Your task to perform on an android device: open app "Google Photos" (install if not already installed) Image 0: 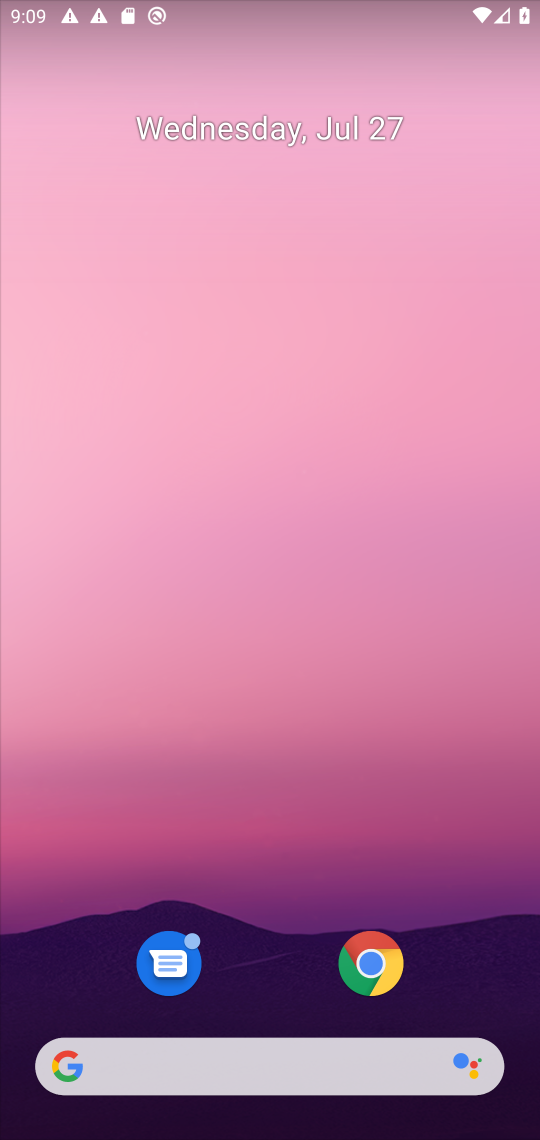
Step 0: drag from (263, 980) to (354, 1)
Your task to perform on an android device: open app "Google Photos" (install if not already installed) Image 1: 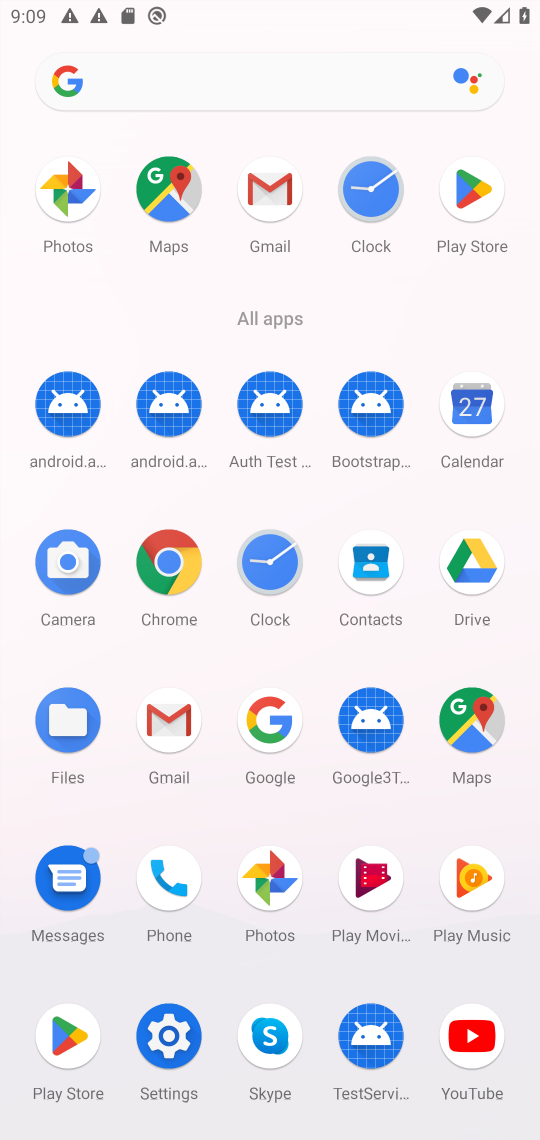
Step 1: click (76, 1023)
Your task to perform on an android device: open app "Google Photos" (install if not already installed) Image 2: 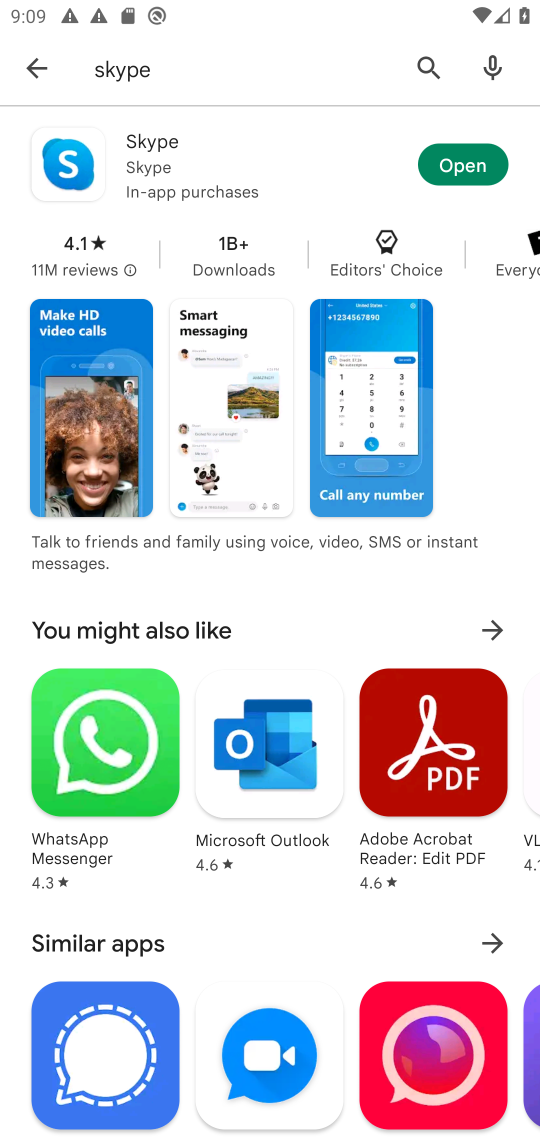
Step 2: click (426, 62)
Your task to perform on an android device: open app "Google Photos" (install if not already installed) Image 3: 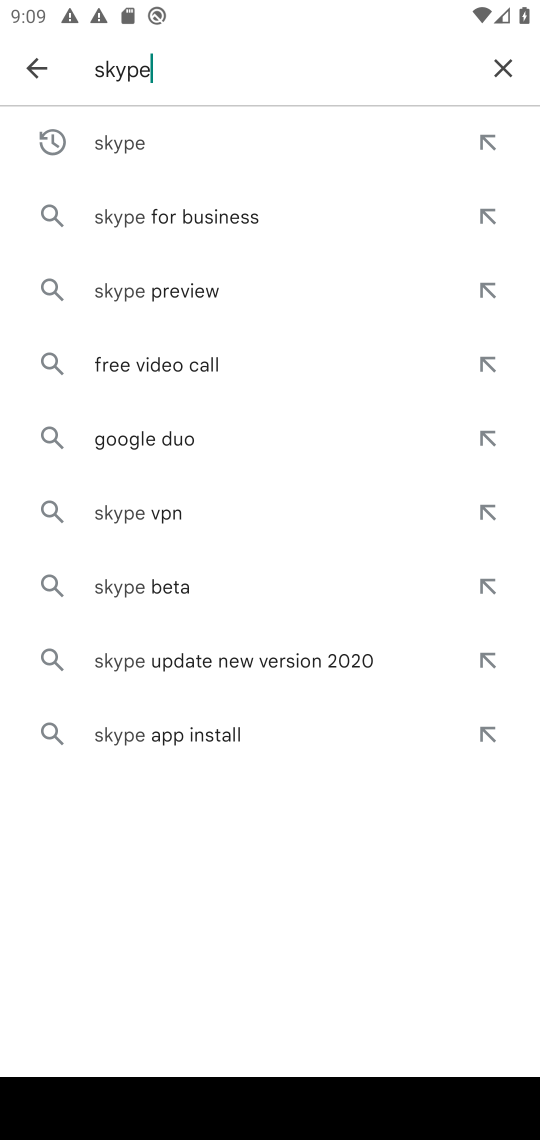
Step 3: click (502, 71)
Your task to perform on an android device: open app "Google Photos" (install if not already installed) Image 4: 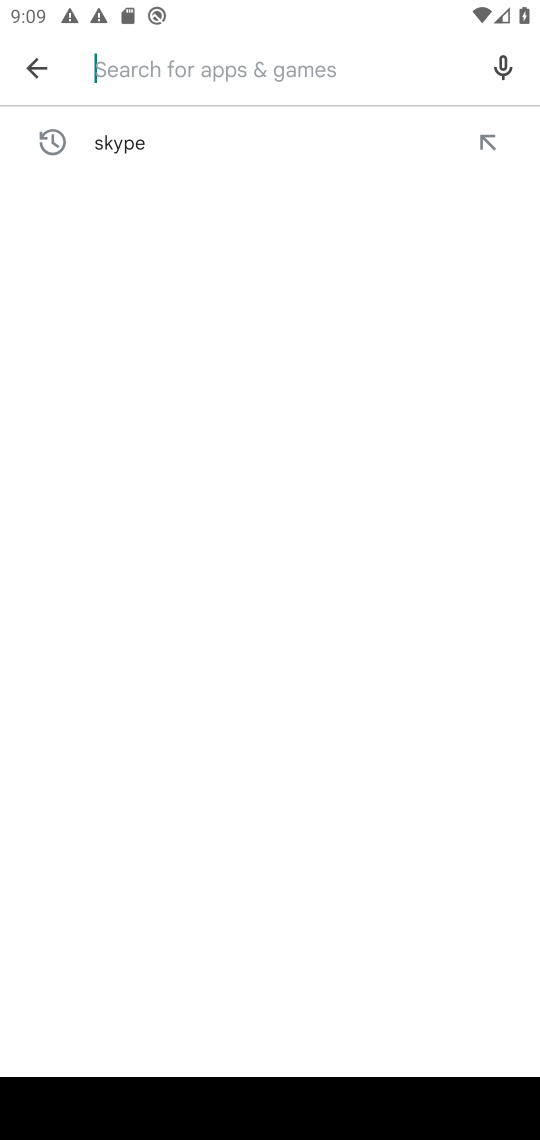
Step 4: click (178, 69)
Your task to perform on an android device: open app "Google Photos" (install if not already installed) Image 5: 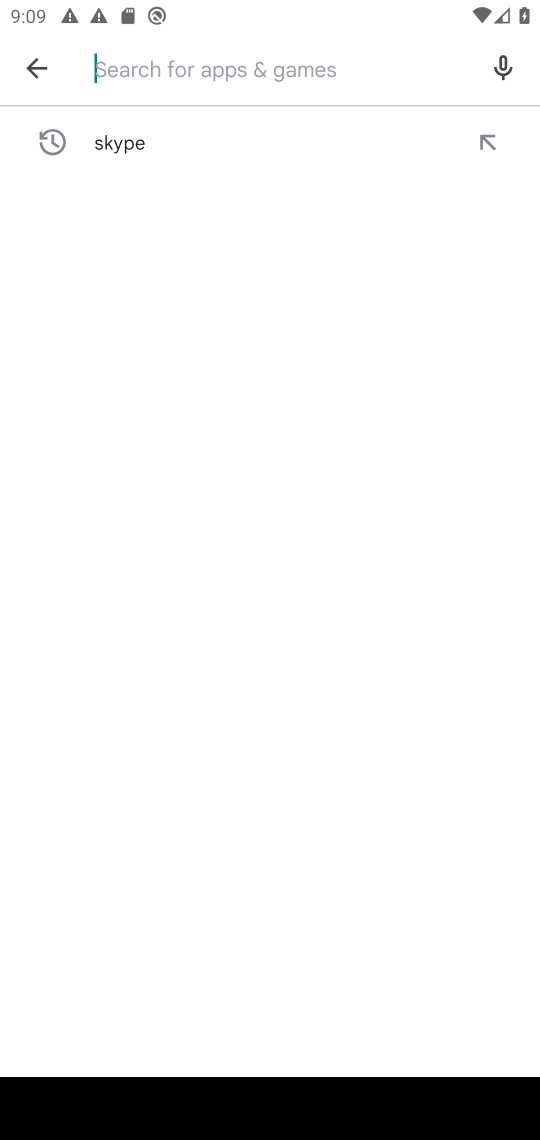
Step 5: type "goggle photos"
Your task to perform on an android device: open app "Google Photos" (install if not already installed) Image 6: 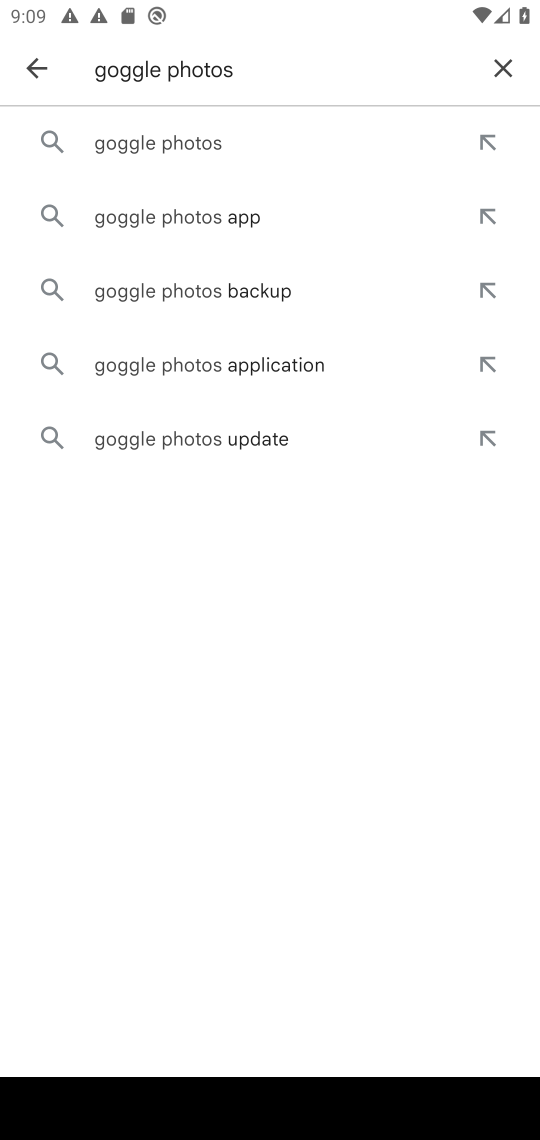
Step 6: click (198, 134)
Your task to perform on an android device: open app "Google Photos" (install if not already installed) Image 7: 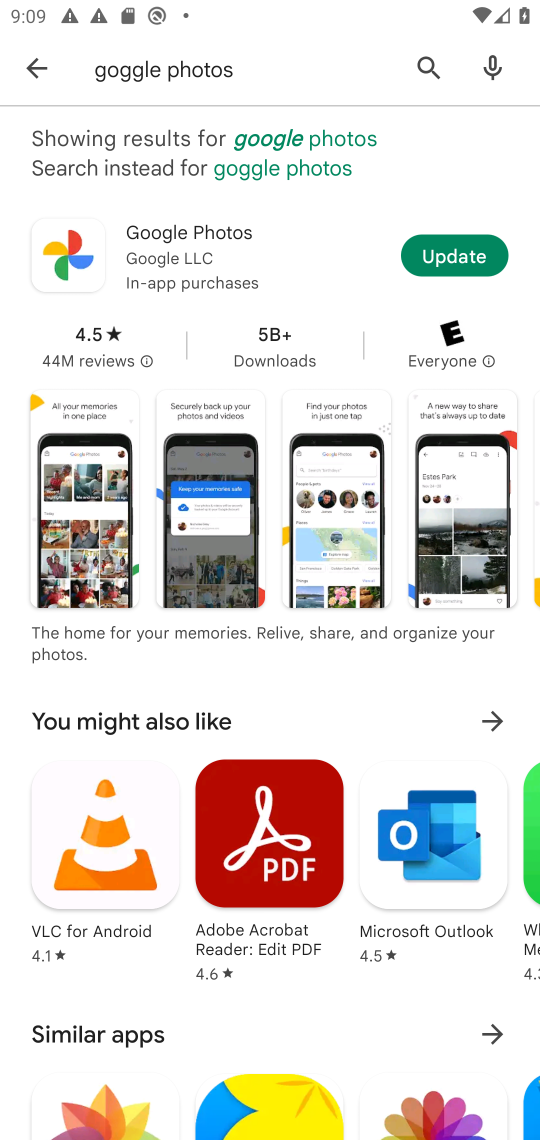
Step 7: click (190, 244)
Your task to perform on an android device: open app "Google Photos" (install if not already installed) Image 8: 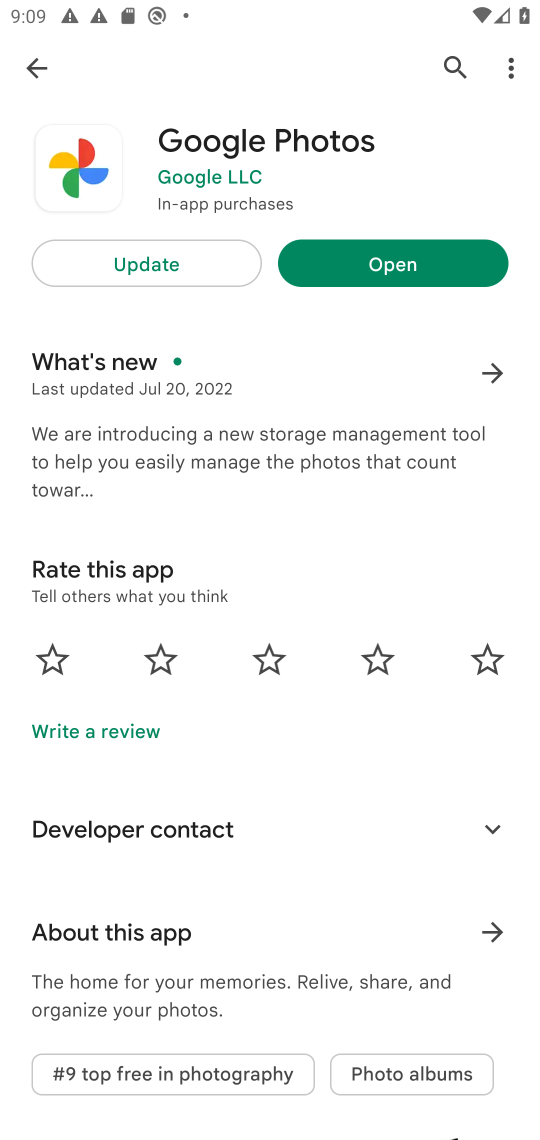
Step 8: click (357, 268)
Your task to perform on an android device: open app "Google Photos" (install if not already installed) Image 9: 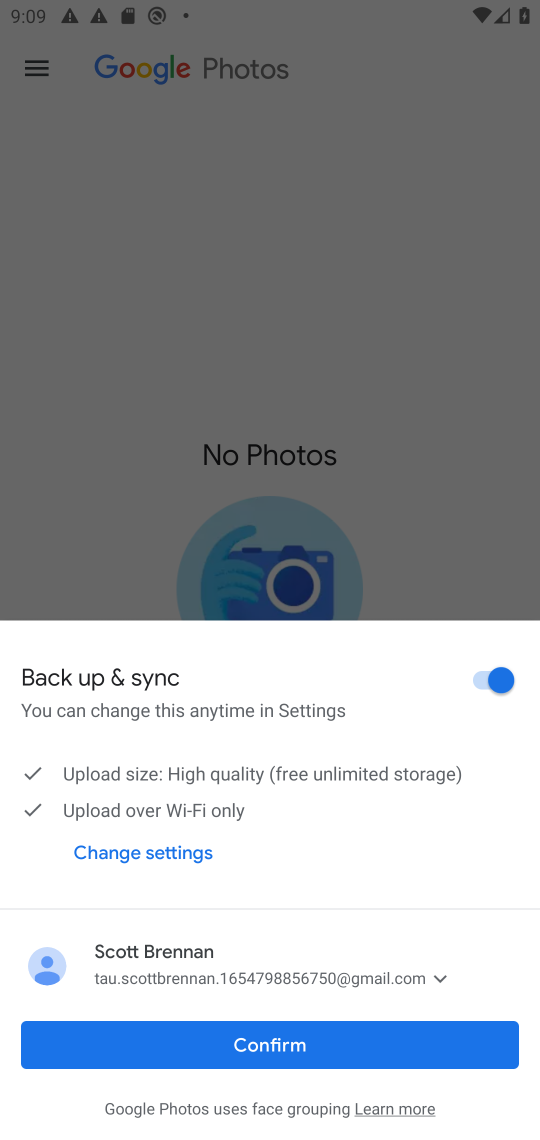
Step 9: task complete